Your task to perform on an android device: set the timer Image 0: 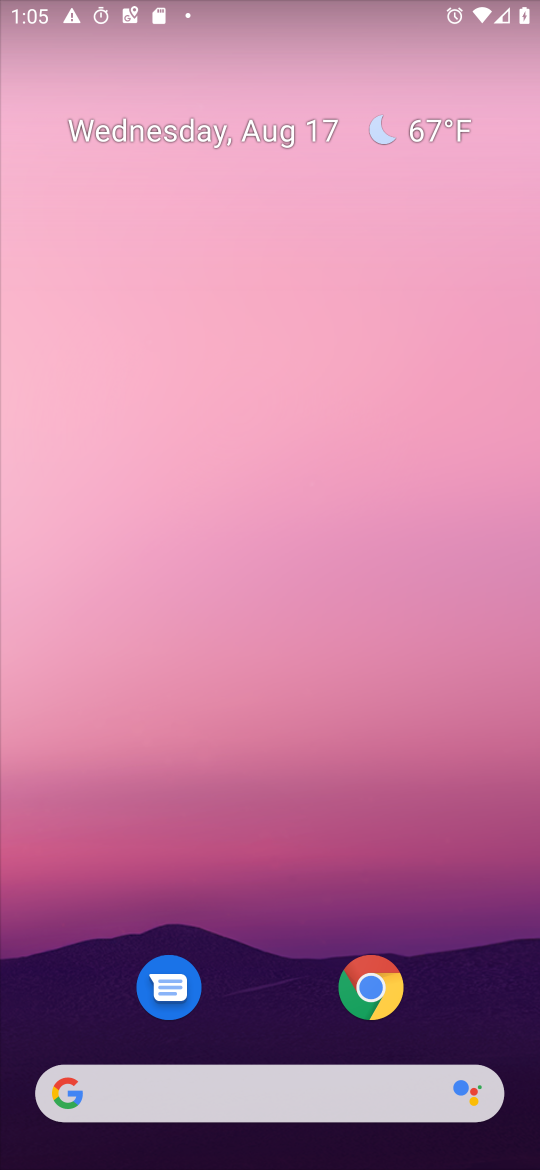
Step 0: drag from (34, 1140) to (161, 720)
Your task to perform on an android device: set the timer Image 1: 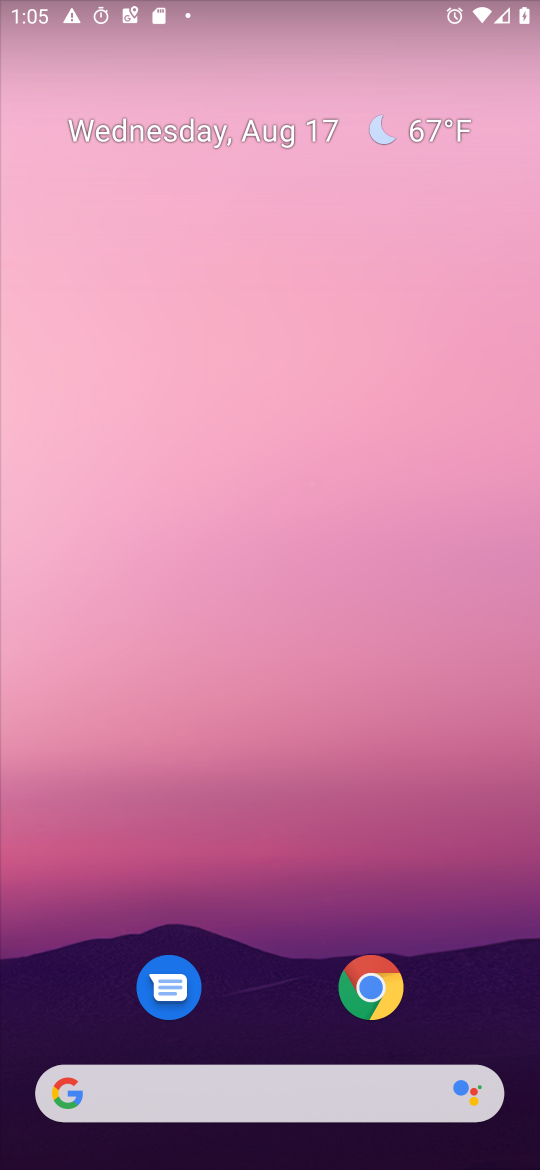
Step 1: drag from (32, 1114) to (266, 375)
Your task to perform on an android device: set the timer Image 2: 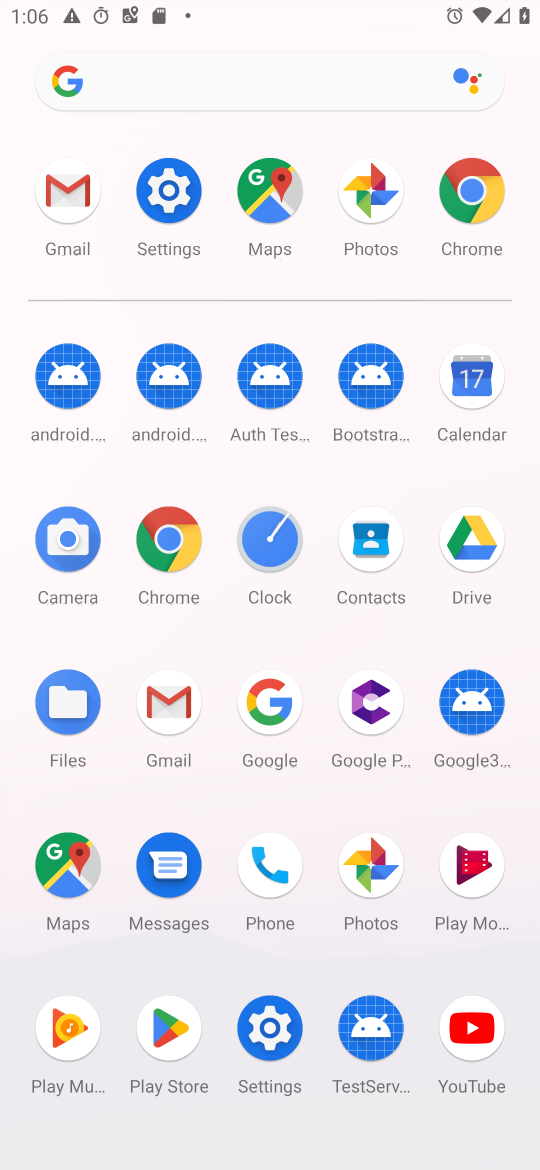
Step 2: click (268, 551)
Your task to perform on an android device: set the timer Image 3: 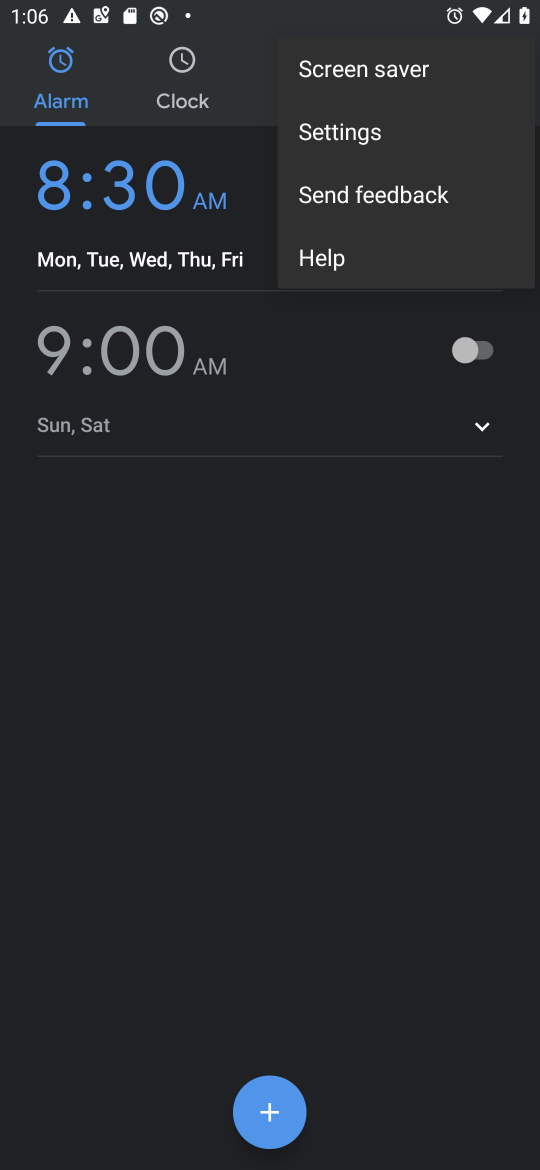
Step 3: click (357, 633)
Your task to perform on an android device: set the timer Image 4: 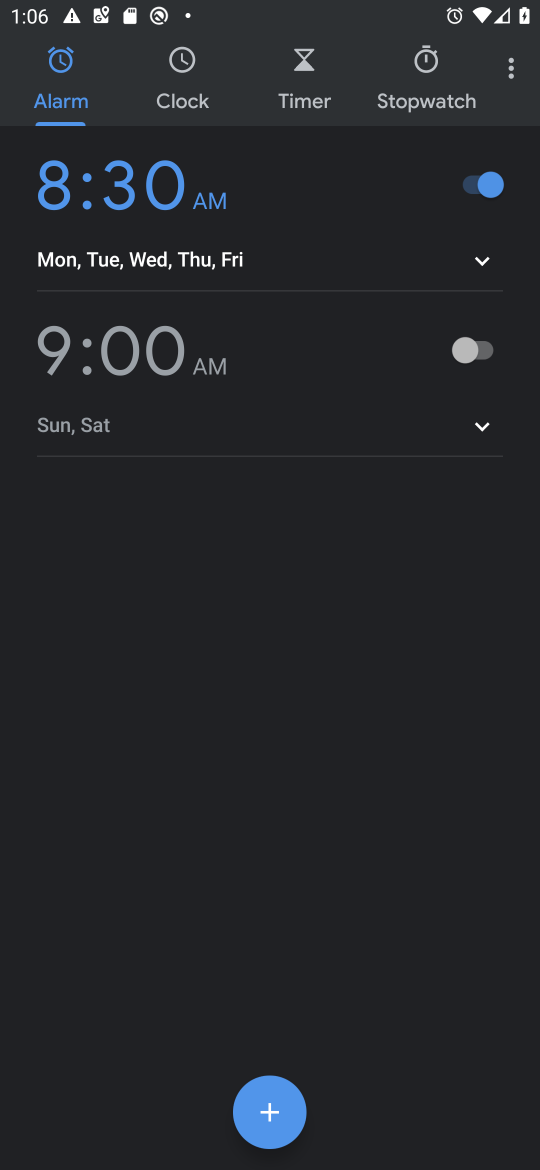
Step 4: click (315, 103)
Your task to perform on an android device: set the timer Image 5: 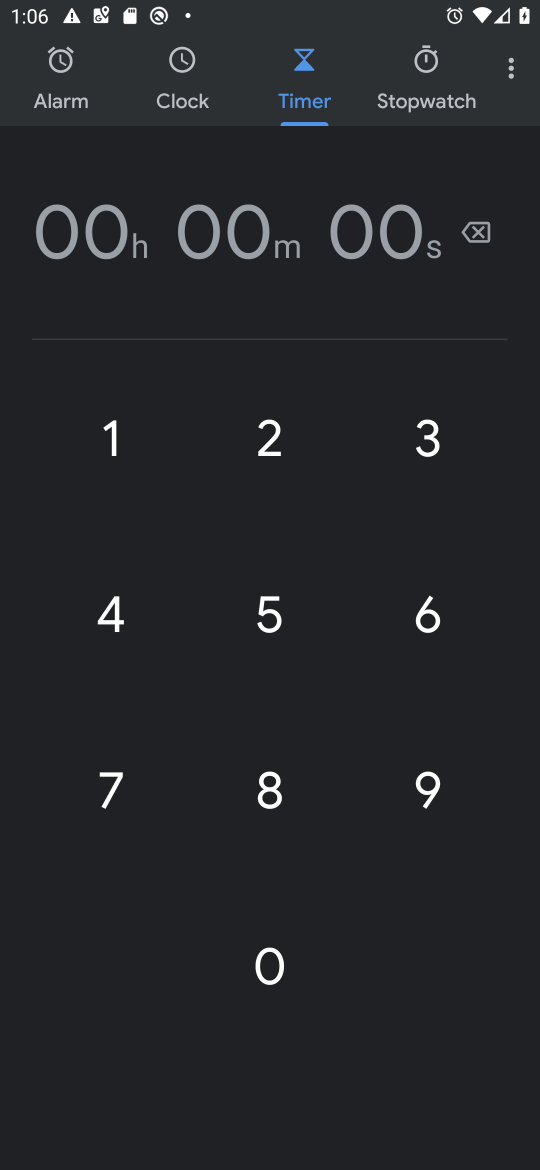
Step 5: click (116, 599)
Your task to perform on an android device: set the timer Image 6: 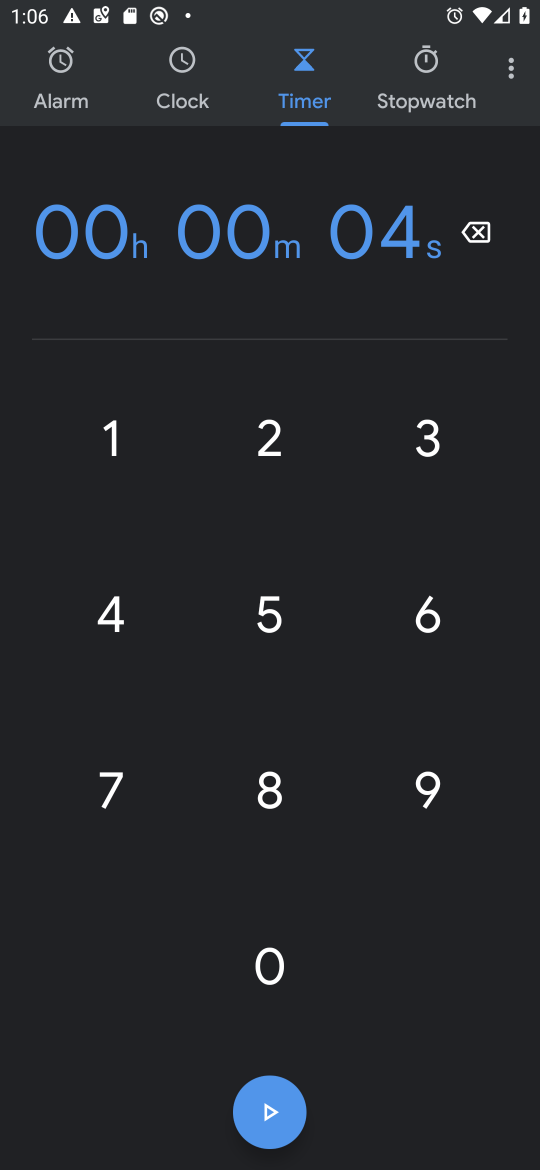
Step 6: click (261, 611)
Your task to perform on an android device: set the timer Image 7: 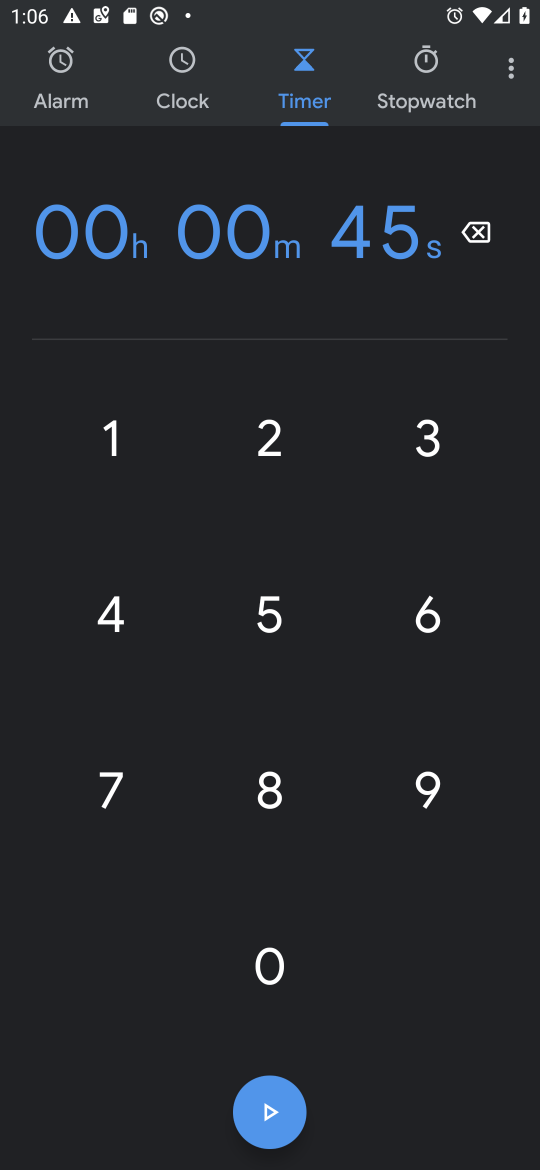
Step 7: click (97, 627)
Your task to perform on an android device: set the timer Image 8: 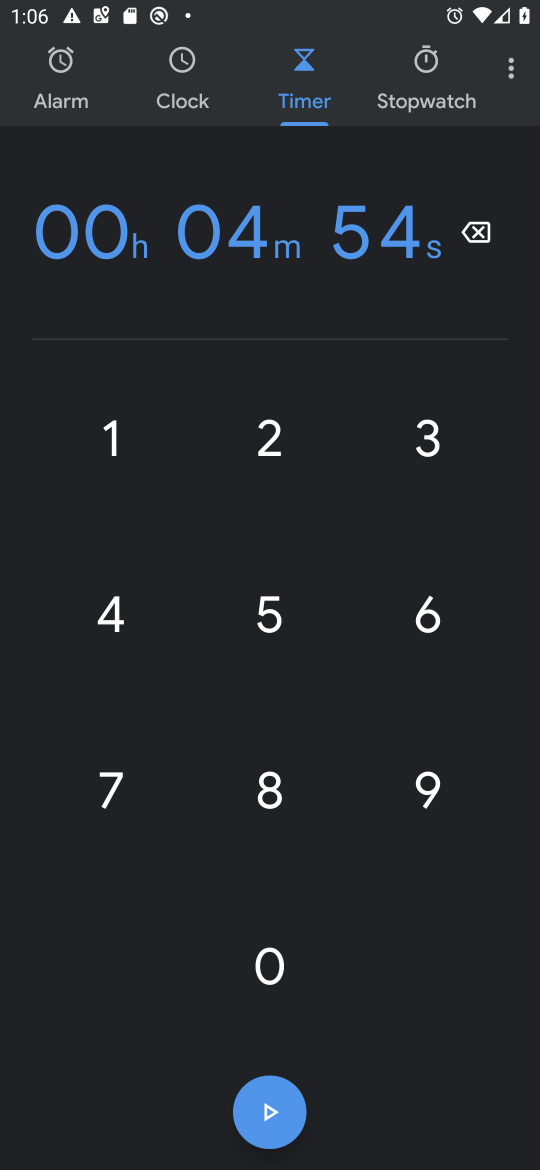
Step 8: task complete